Your task to perform on an android device: add a contact Image 0: 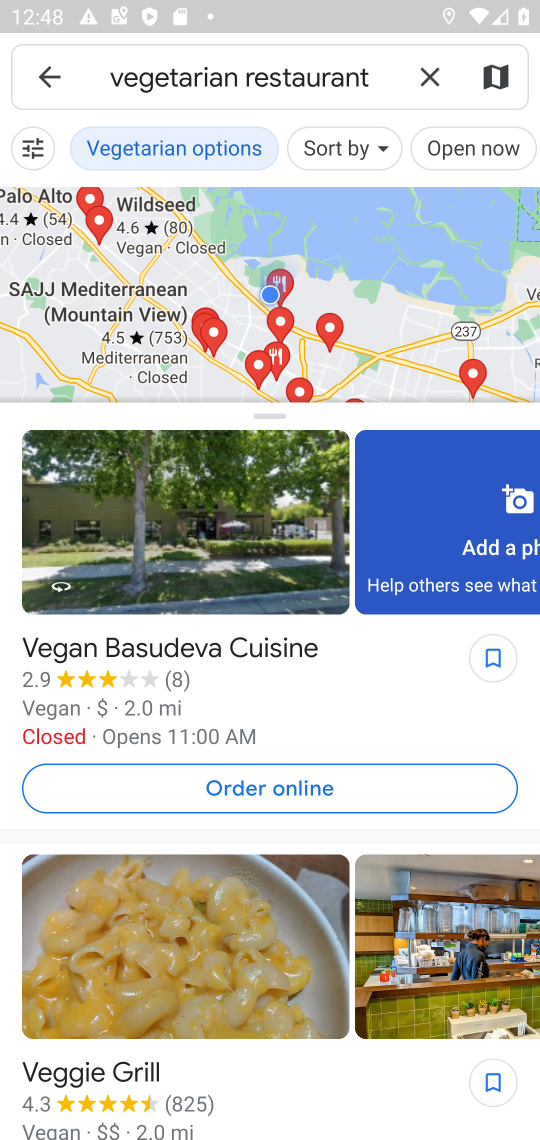
Step 0: click (48, 77)
Your task to perform on an android device: add a contact Image 1: 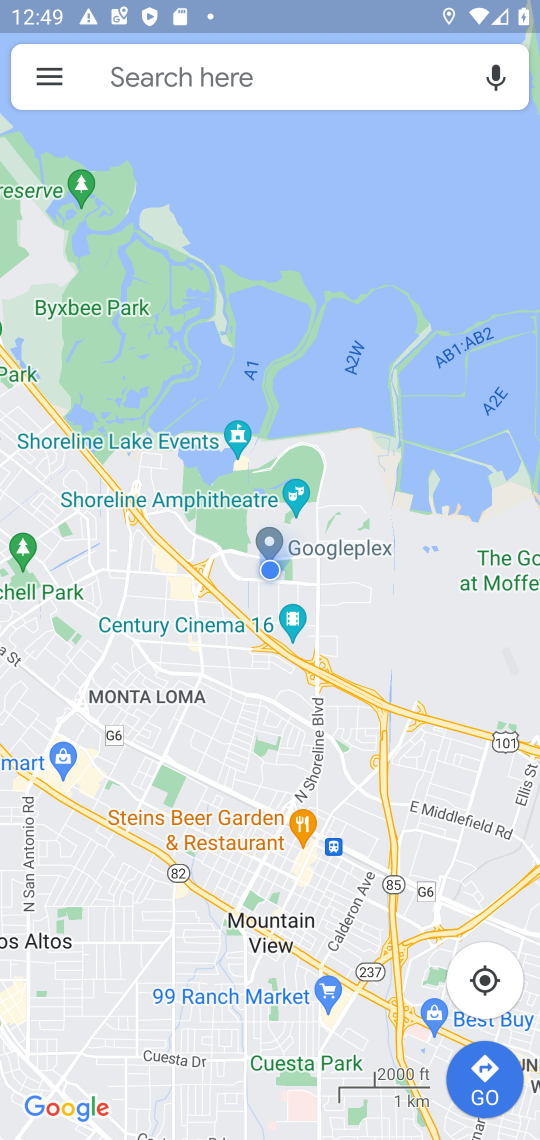
Step 1: press home button
Your task to perform on an android device: add a contact Image 2: 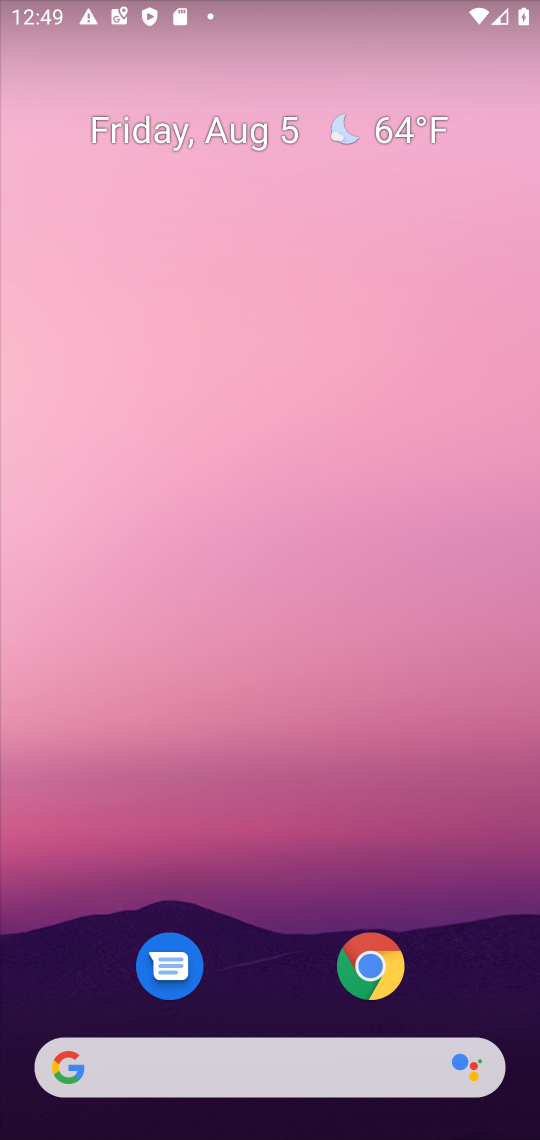
Step 2: drag from (293, 962) to (288, 90)
Your task to perform on an android device: add a contact Image 3: 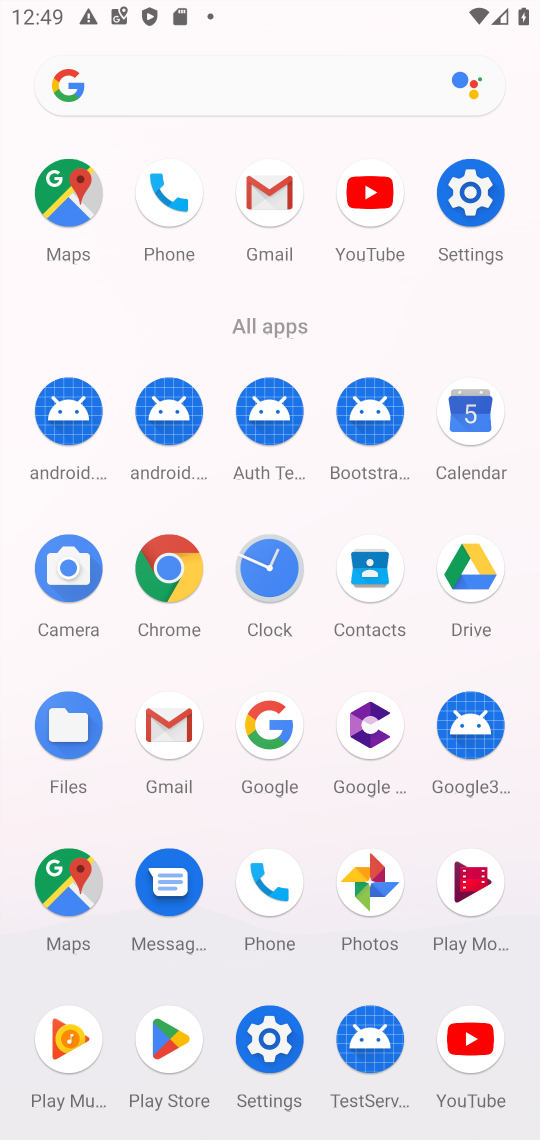
Step 3: click (371, 571)
Your task to perform on an android device: add a contact Image 4: 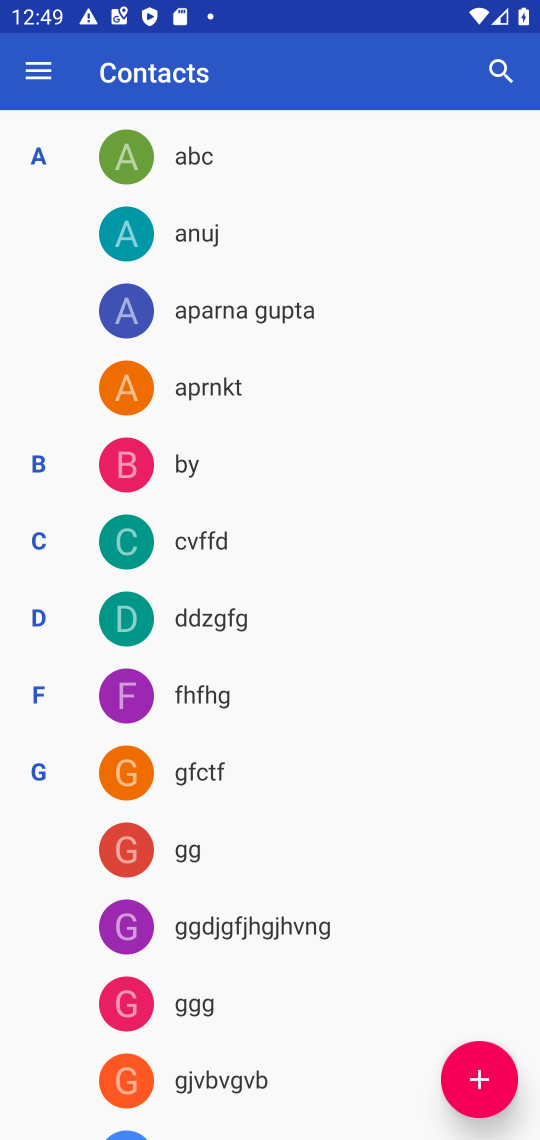
Step 4: click (478, 1061)
Your task to perform on an android device: add a contact Image 5: 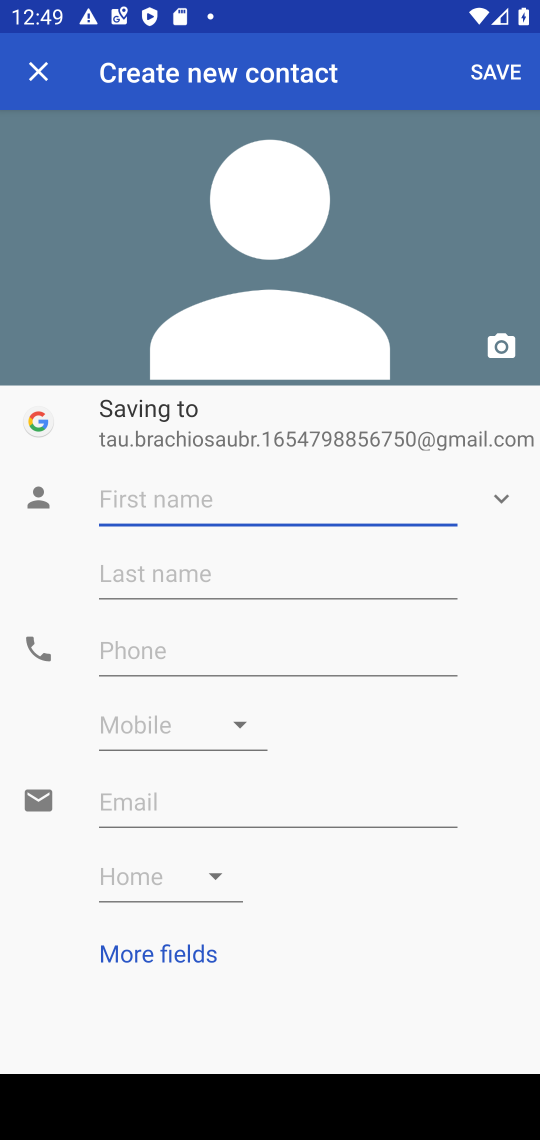
Step 5: type "Abba"
Your task to perform on an android device: add a contact Image 6: 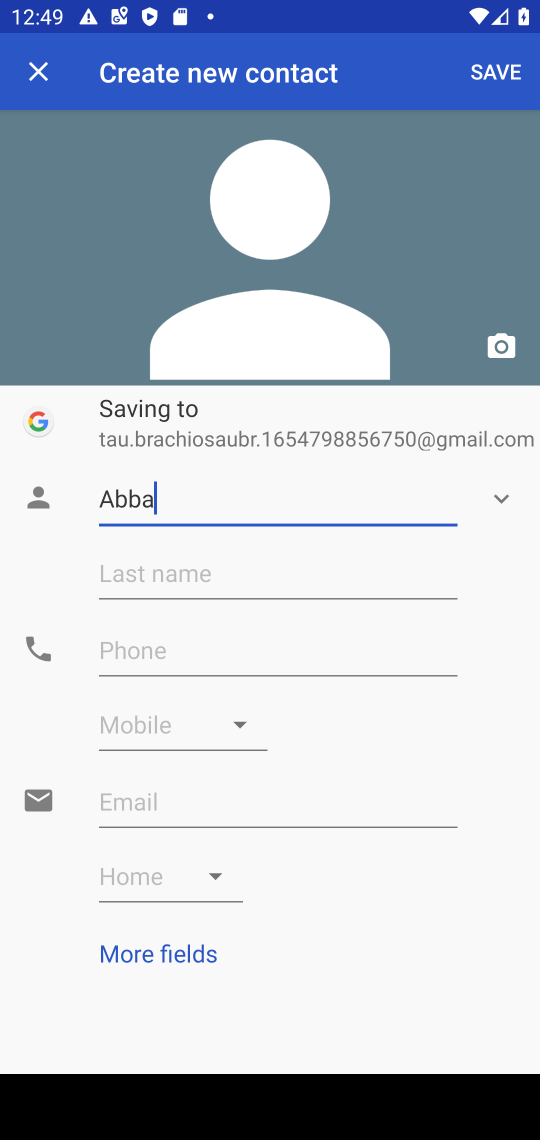
Step 6: click (328, 652)
Your task to perform on an android device: add a contact Image 7: 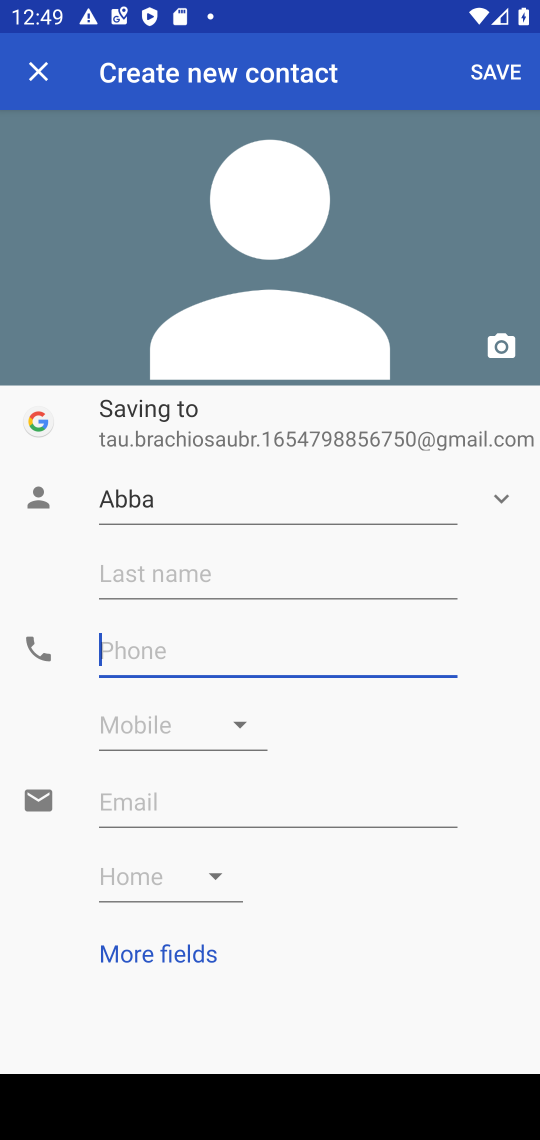
Step 7: type "+91999900001"
Your task to perform on an android device: add a contact Image 8: 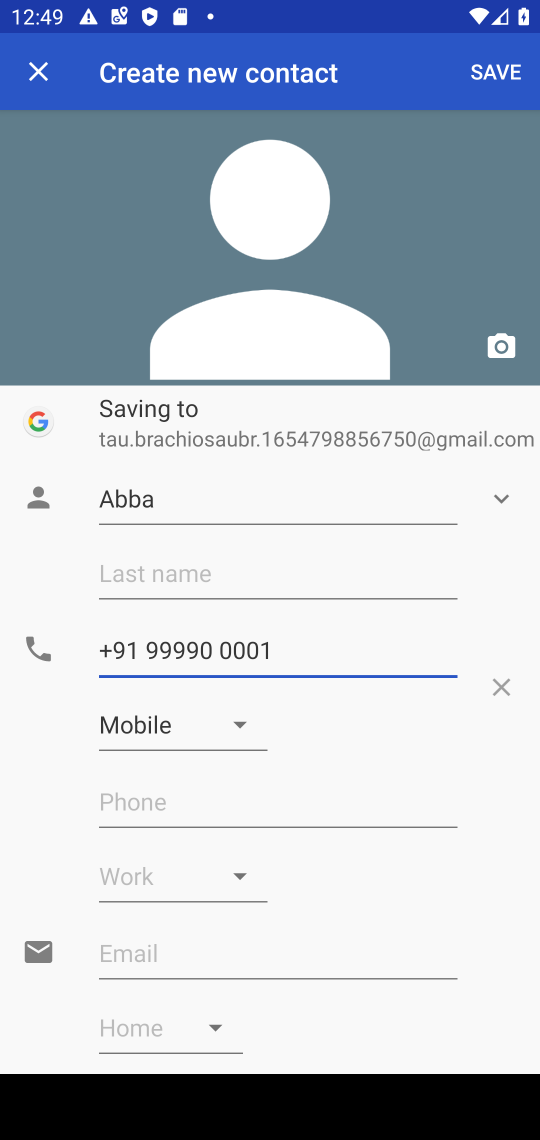
Step 8: click (505, 77)
Your task to perform on an android device: add a contact Image 9: 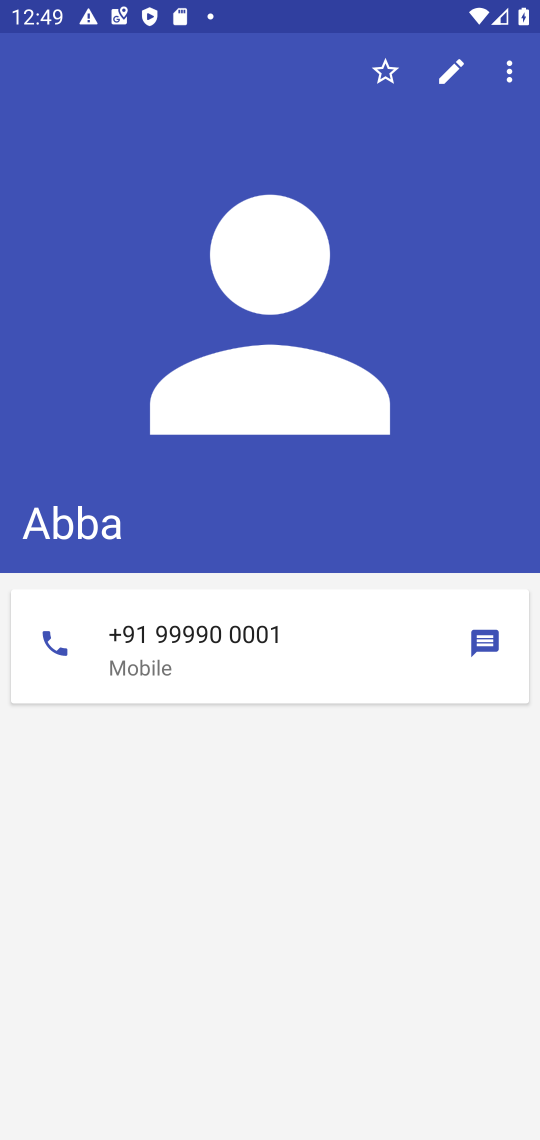
Step 9: task complete